Your task to perform on an android device: Search for Mexican restaurants on Maps Image 0: 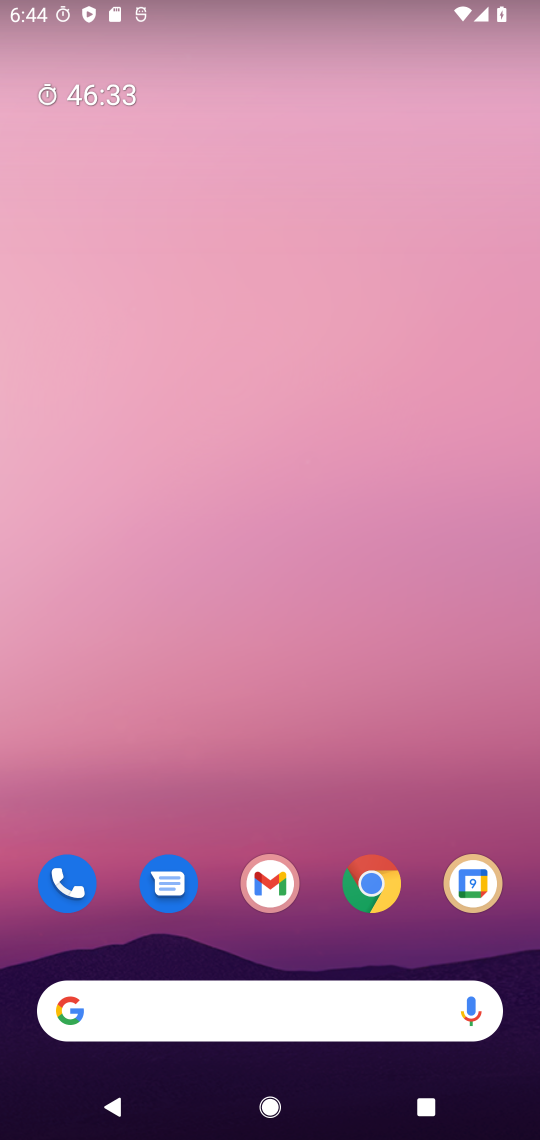
Step 0: drag from (257, 821) to (259, 153)
Your task to perform on an android device: Search for Mexican restaurants on Maps Image 1: 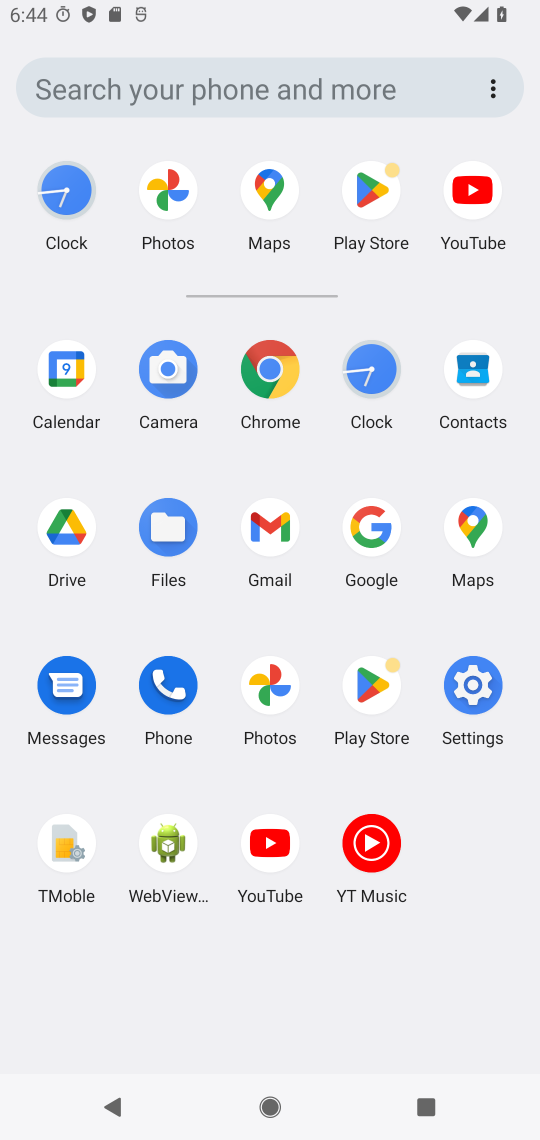
Step 1: click (275, 194)
Your task to perform on an android device: Search for Mexican restaurants on Maps Image 2: 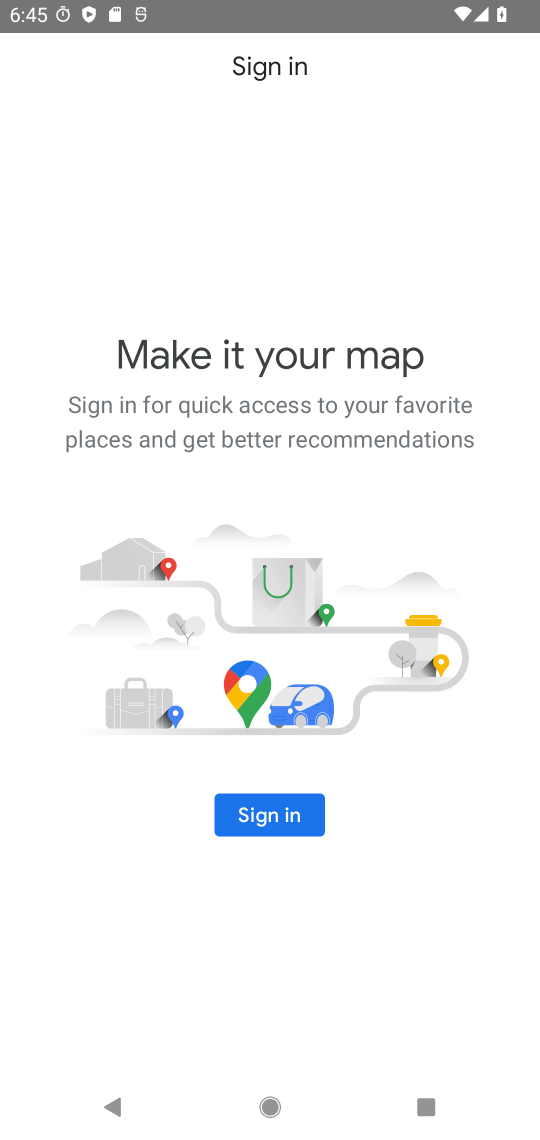
Step 2: task complete